Your task to perform on an android device: open chrome and create a bookmark for the current page Image 0: 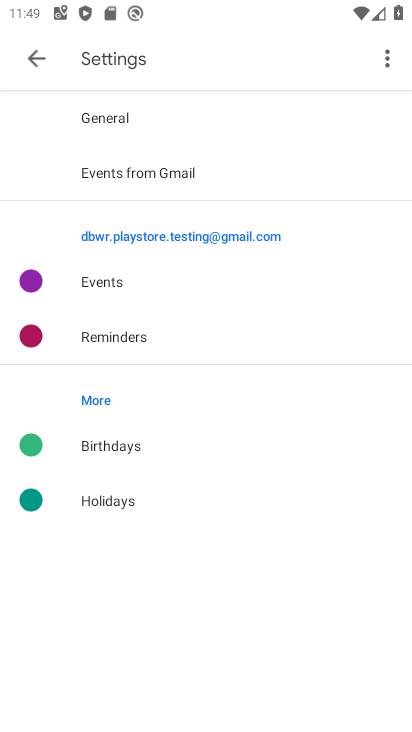
Step 0: press home button
Your task to perform on an android device: open chrome and create a bookmark for the current page Image 1: 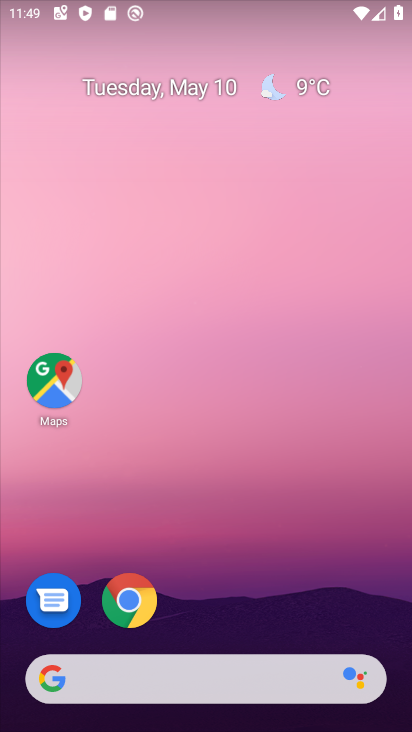
Step 1: click (137, 599)
Your task to perform on an android device: open chrome and create a bookmark for the current page Image 2: 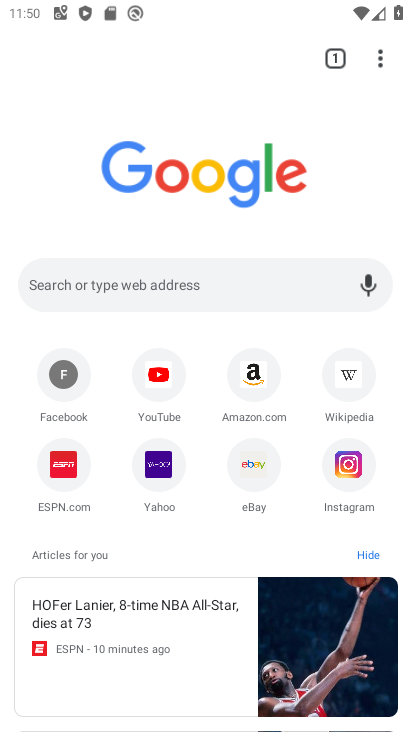
Step 2: click (381, 60)
Your task to perform on an android device: open chrome and create a bookmark for the current page Image 3: 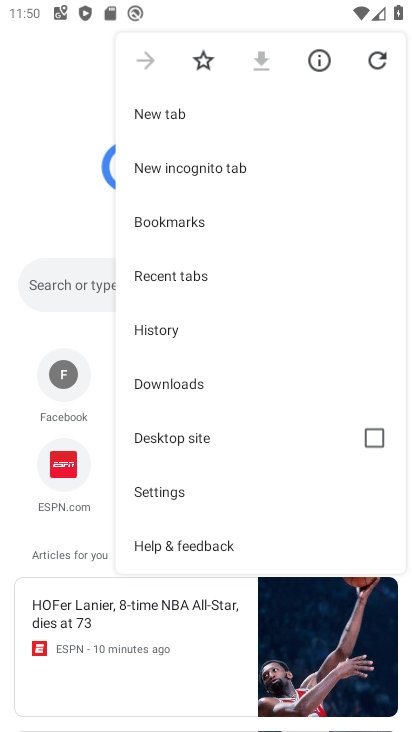
Step 3: click (212, 59)
Your task to perform on an android device: open chrome and create a bookmark for the current page Image 4: 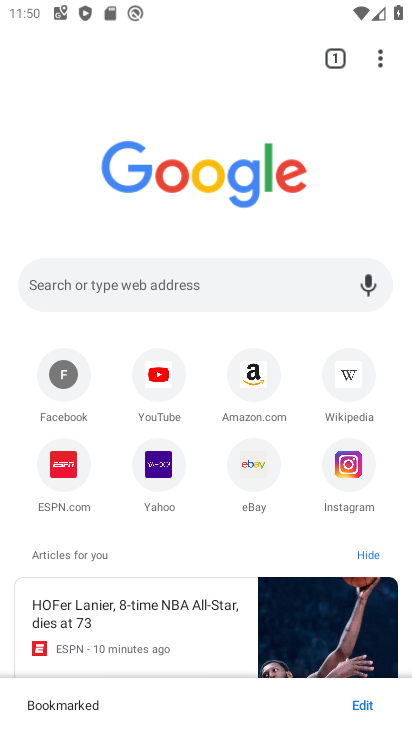
Step 4: task complete